Your task to perform on an android device: toggle translation in the chrome app Image 0: 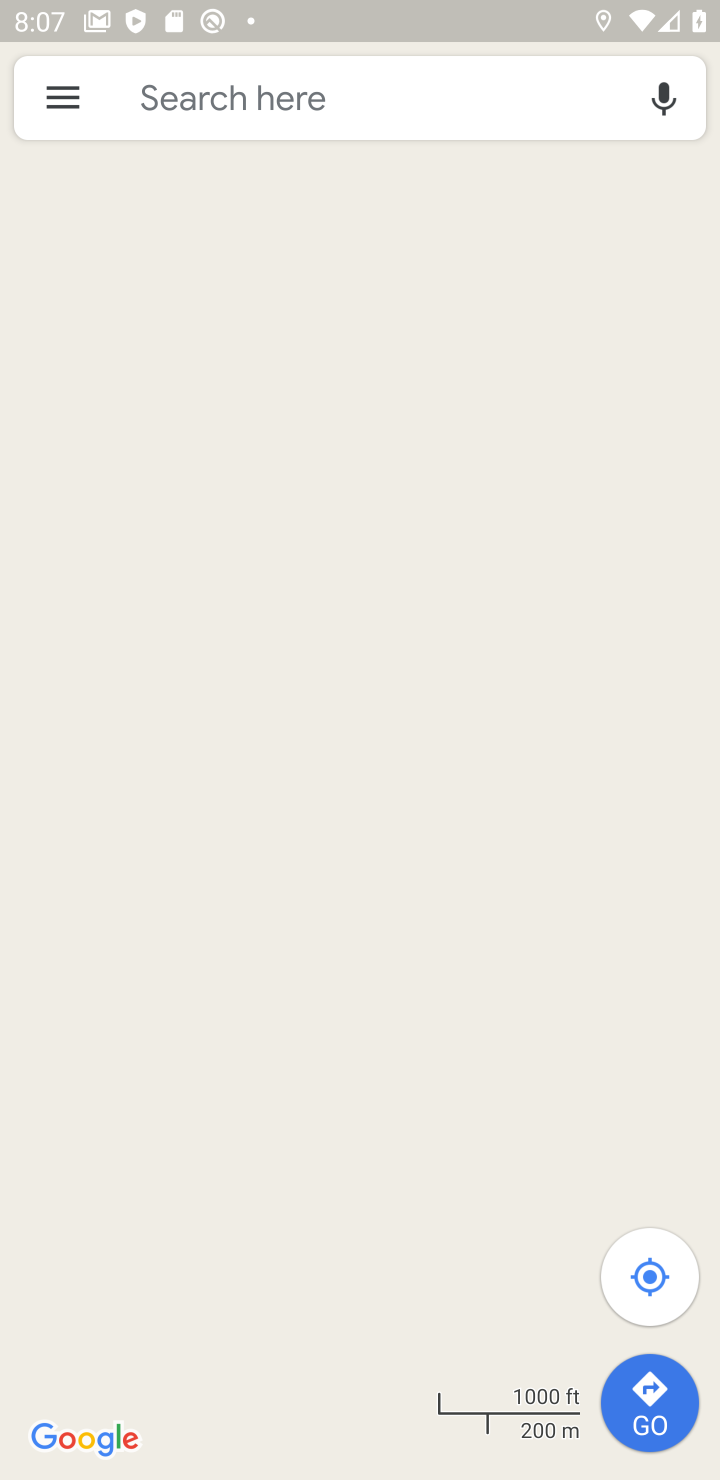
Step 0: press home button
Your task to perform on an android device: toggle translation in the chrome app Image 1: 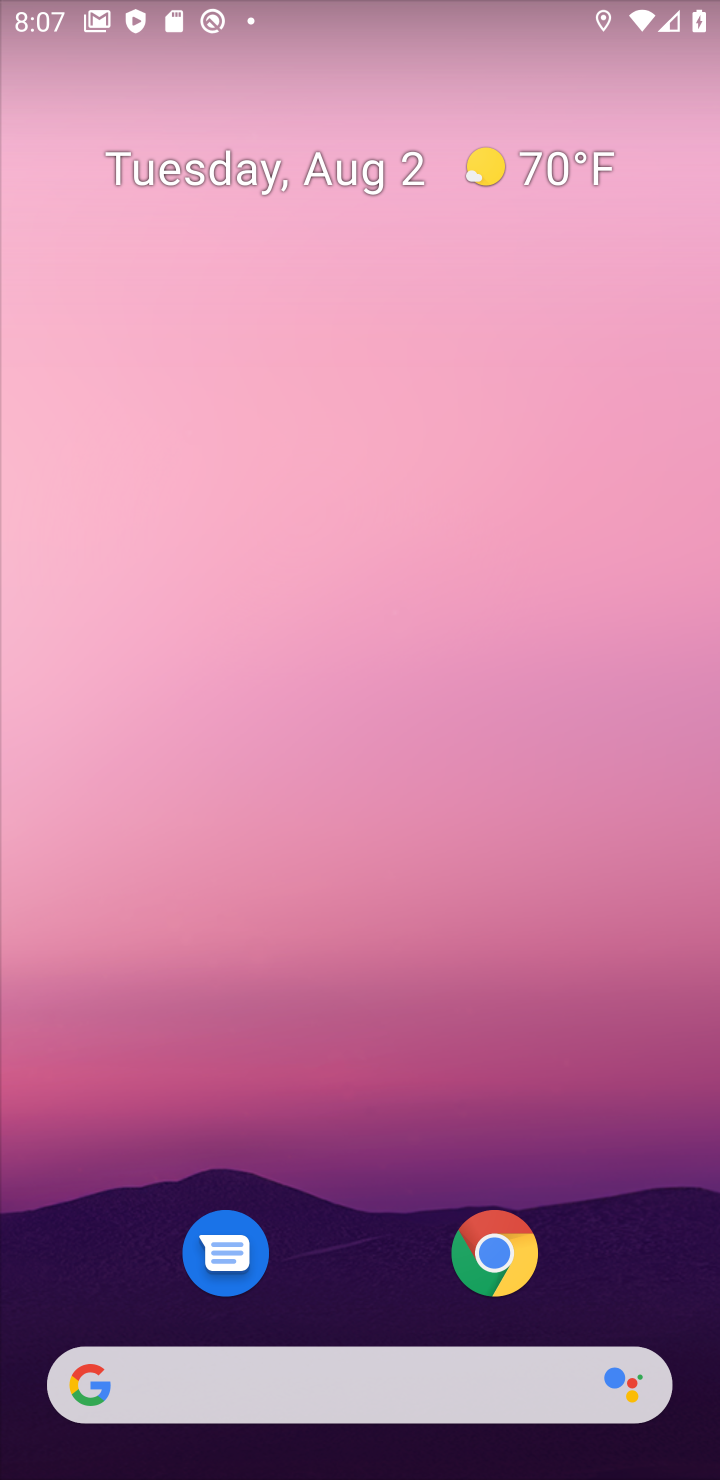
Step 1: click (492, 1242)
Your task to perform on an android device: toggle translation in the chrome app Image 2: 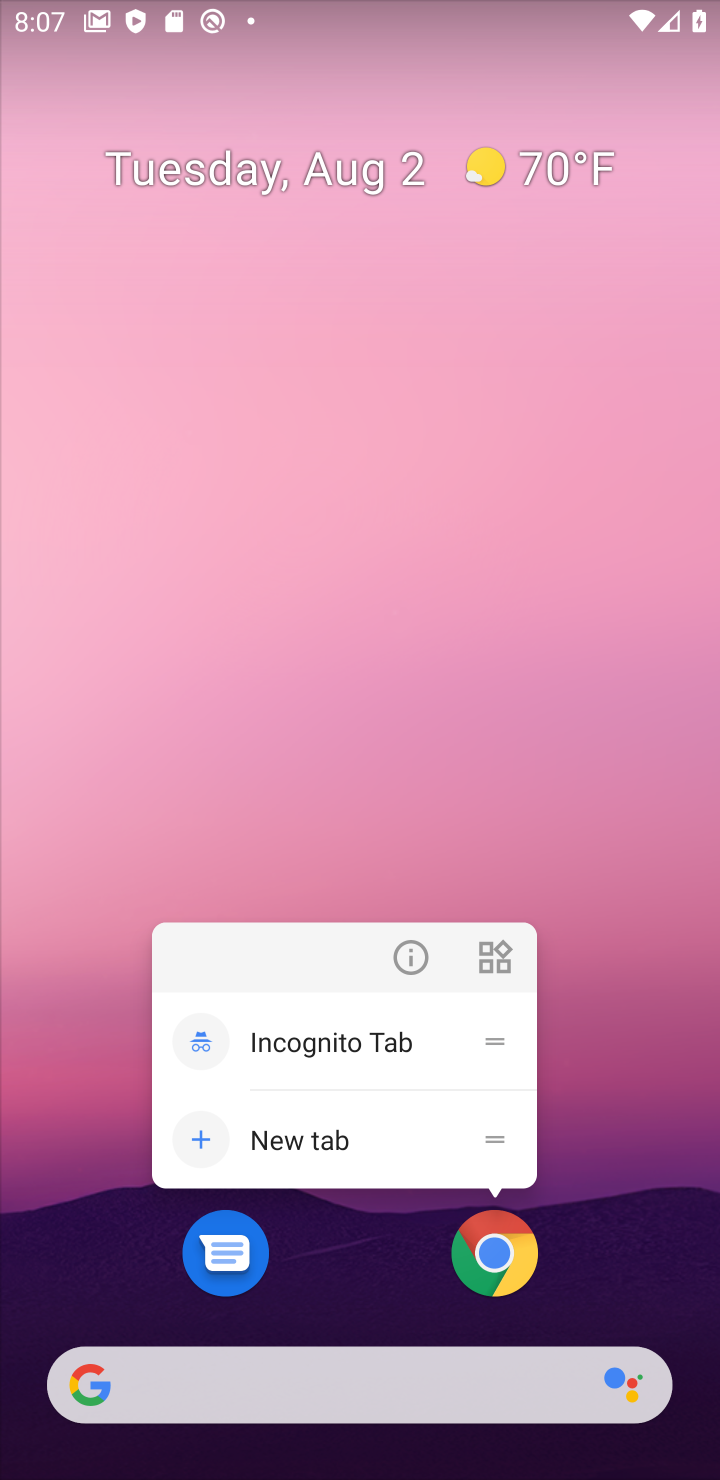
Step 2: click (492, 1242)
Your task to perform on an android device: toggle translation in the chrome app Image 3: 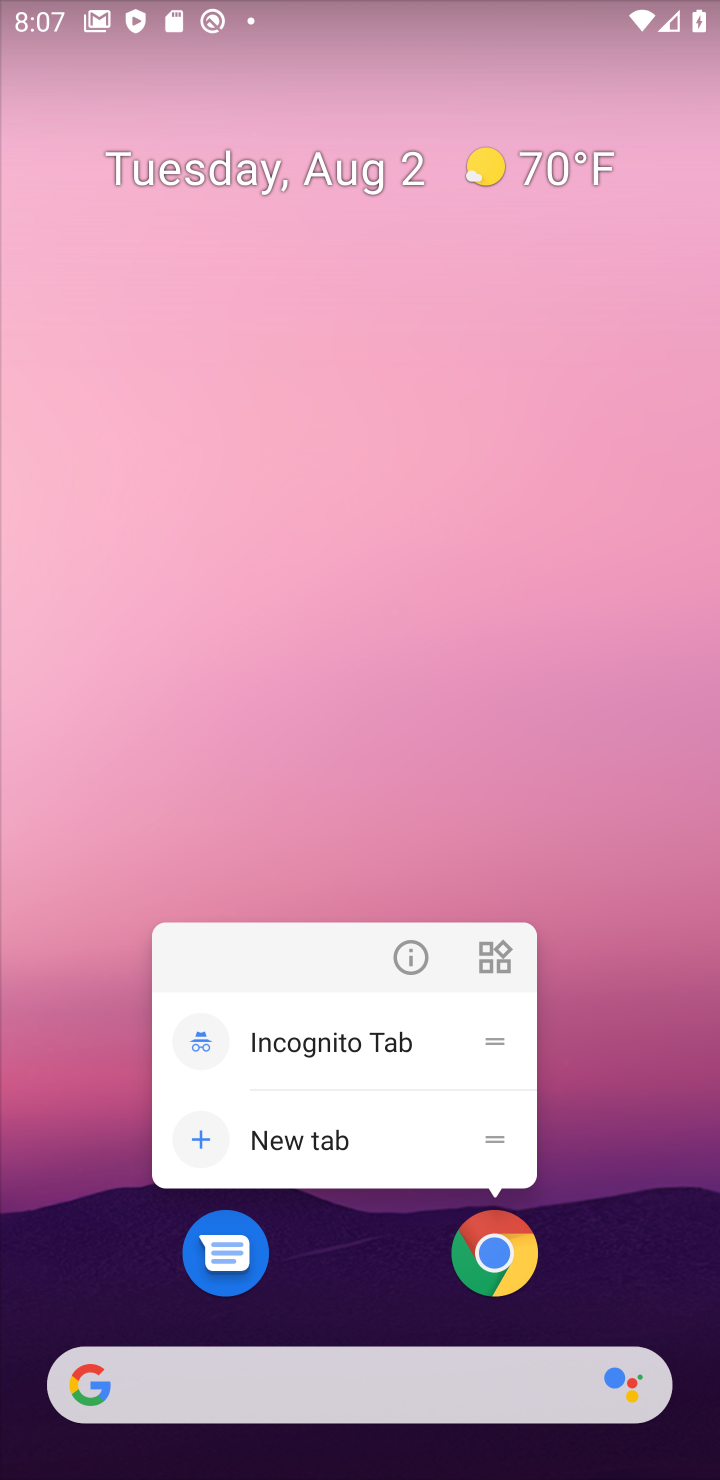
Step 3: click (492, 1242)
Your task to perform on an android device: toggle translation in the chrome app Image 4: 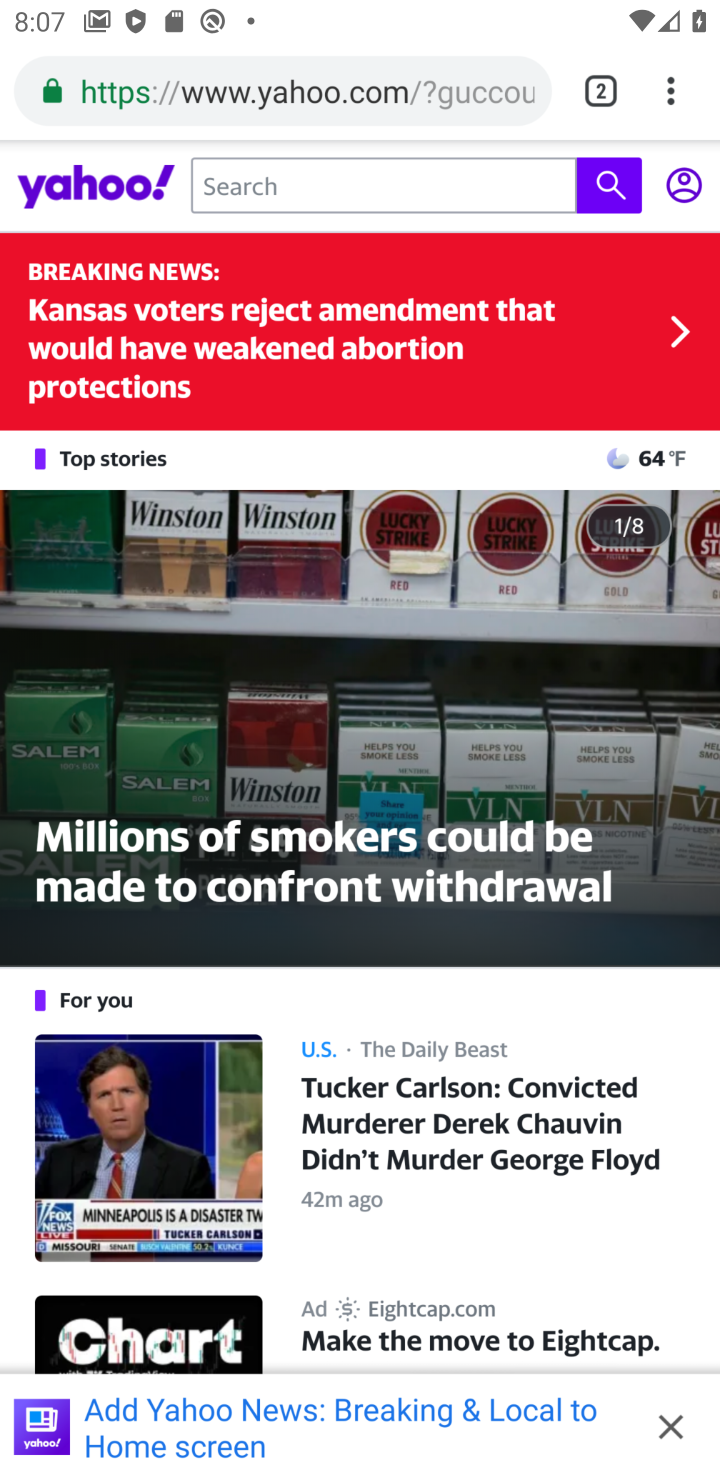
Step 4: drag from (679, 92) to (435, 1193)
Your task to perform on an android device: toggle translation in the chrome app Image 5: 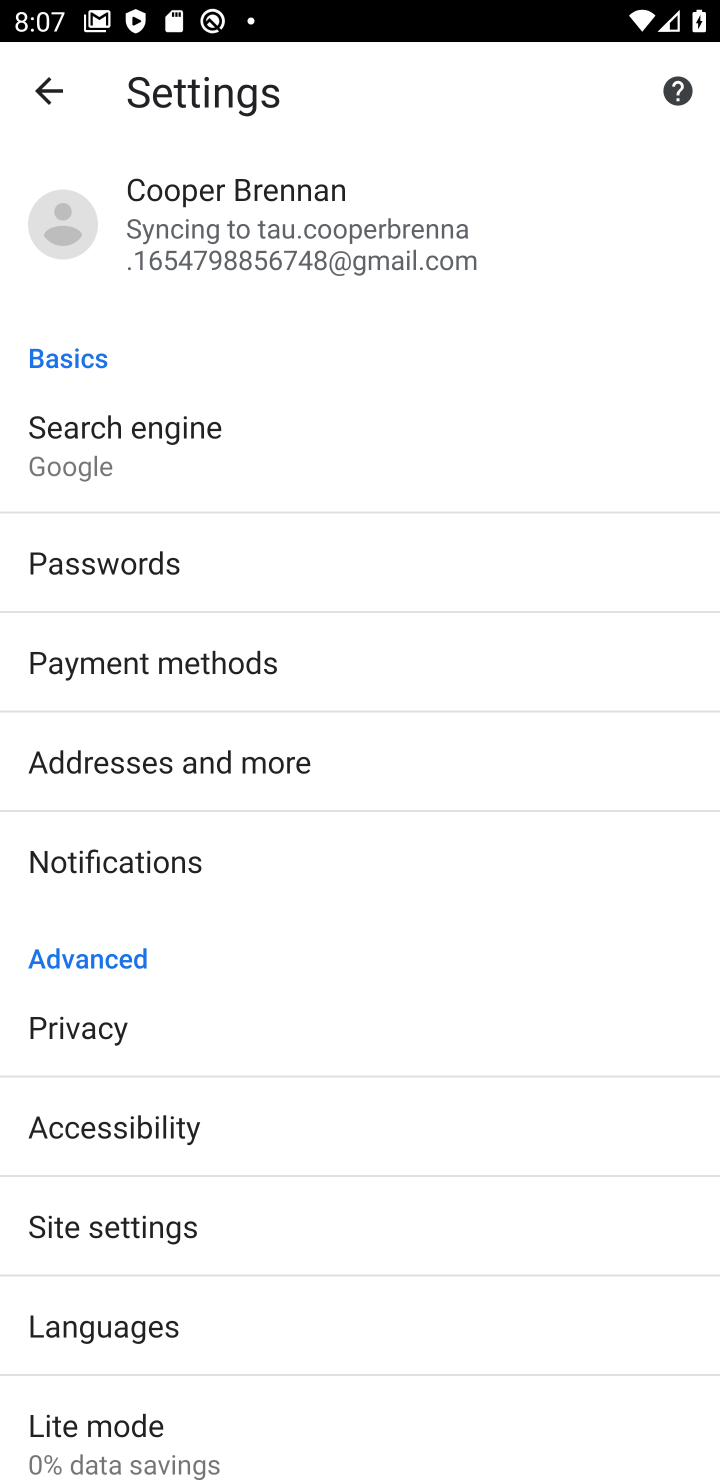
Step 5: drag from (291, 1208) to (499, 619)
Your task to perform on an android device: toggle translation in the chrome app Image 6: 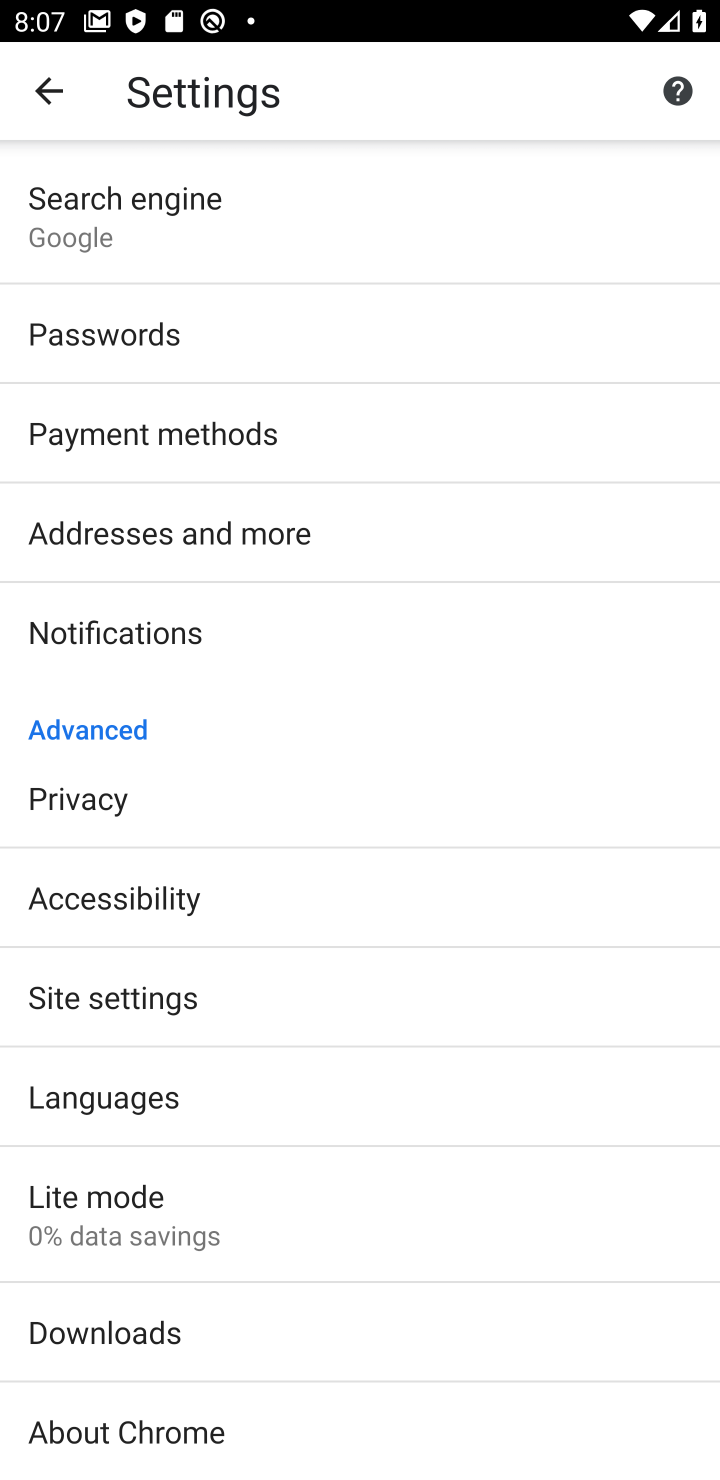
Step 6: click (167, 1096)
Your task to perform on an android device: toggle translation in the chrome app Image 7: 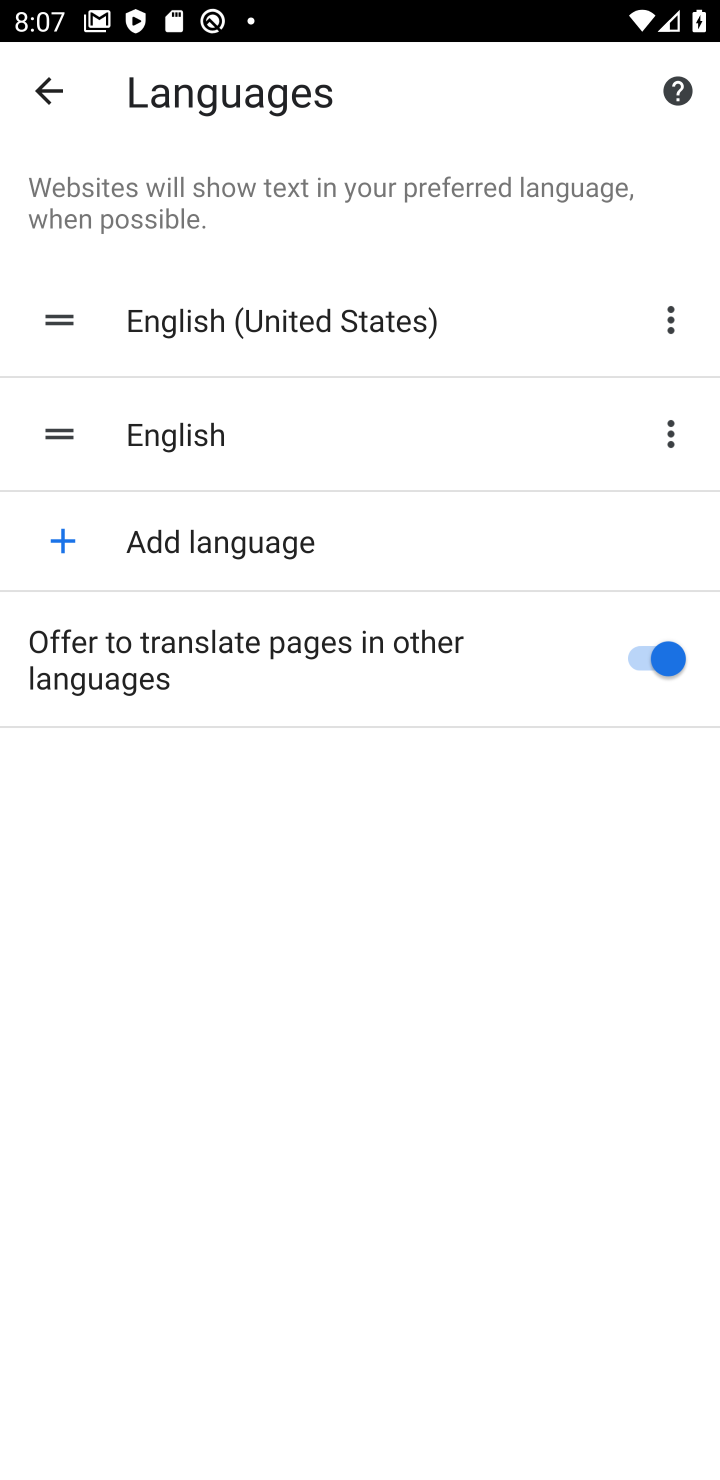
Step 7: click (644, 644)
Your task to perform on an android device: toggle translation in the chrome app Image 8: 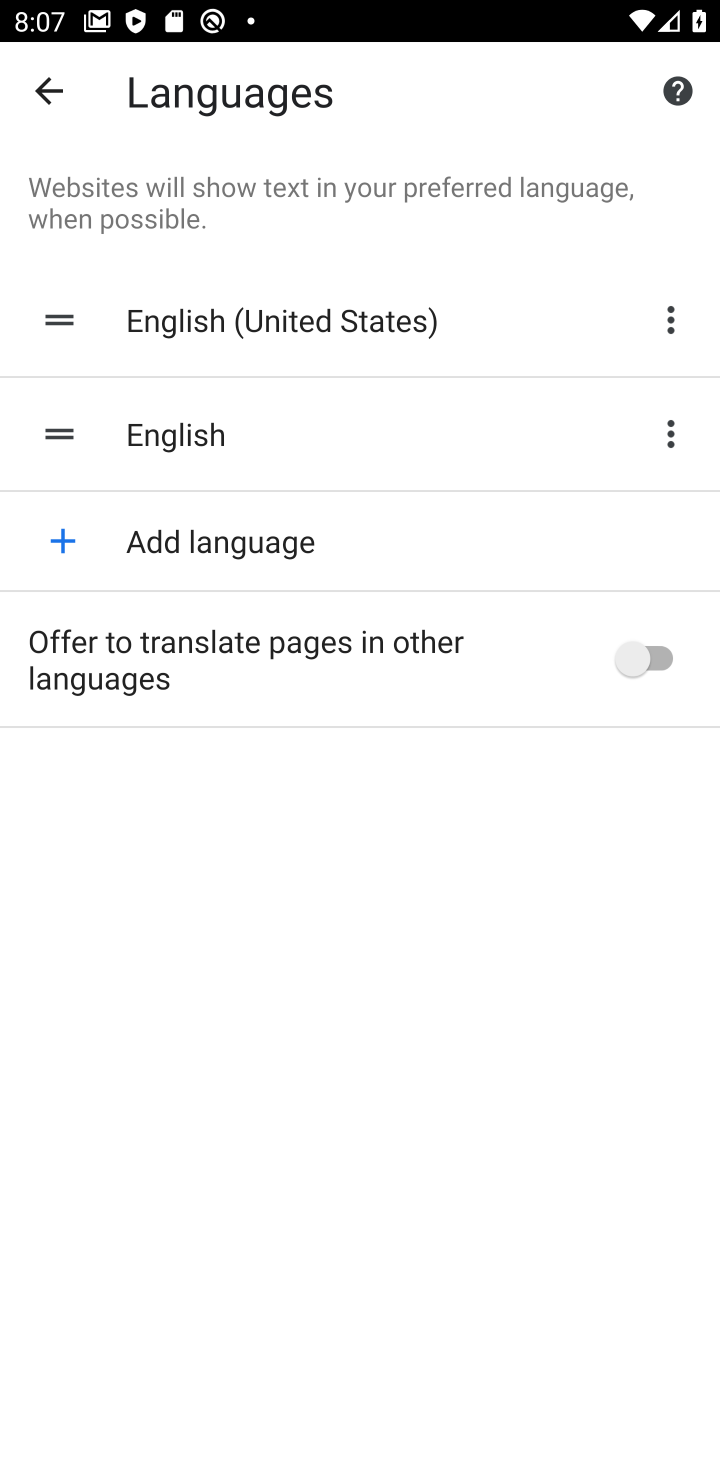
Step 8: task complete